Your task to perform on an android device: Open the calendar app, open the side menu, and click the "Day" option Image 0: 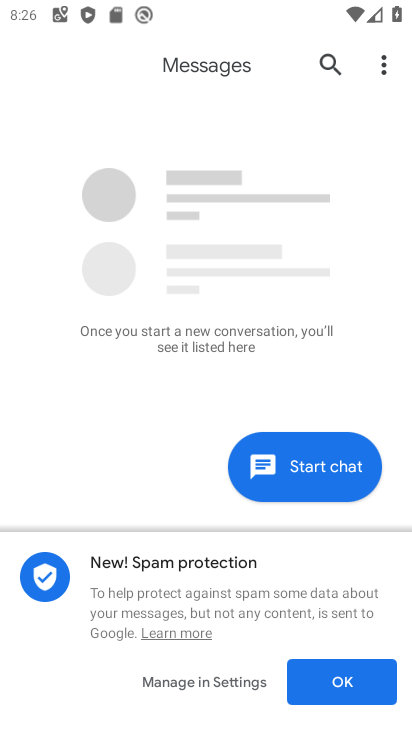
Step 0: press back button
Your task to perform on an android device: Open the calendar app, open the side menu, and click the "Day" option Image 1: 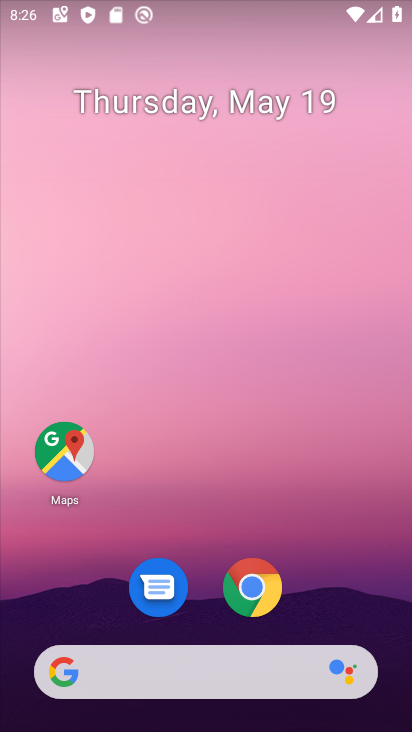
Step 1: drag from (329, 586) to (255, 10)
Your task to perform on an android device: Open the calendar app, open the side menu, and click the "Day" option Image 2: 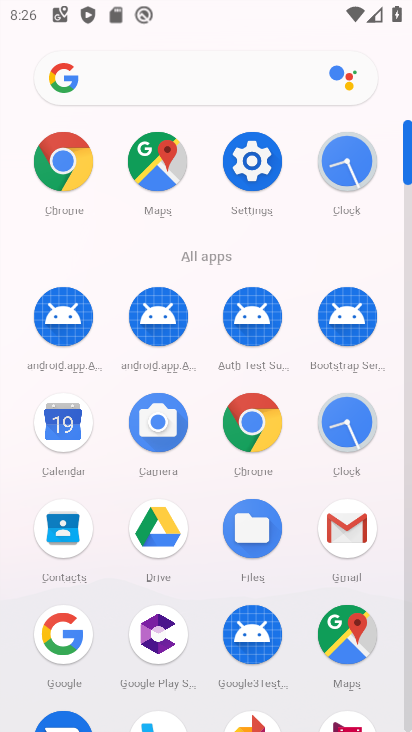
Step 2: drag from (0, 568) to (9, 261)
Your task to perform on an android device: Open the calendar app, open the side menu, and click the "Day" option Image 3: 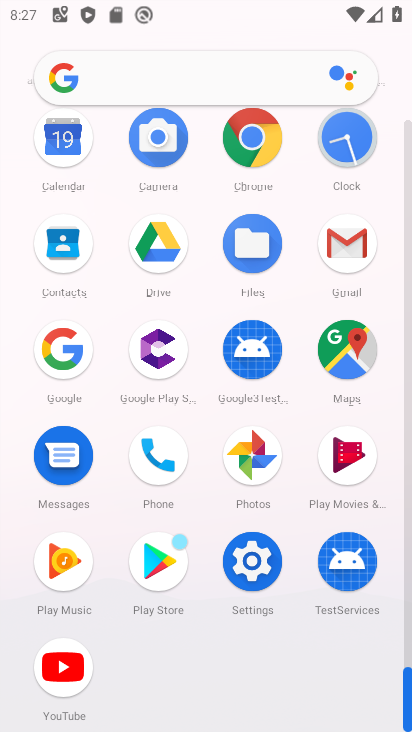
Step 3: click (57, 135)
Your task to perform on an android device: Open the calendar app, open the side menu, and click the "Day" option Image 4: 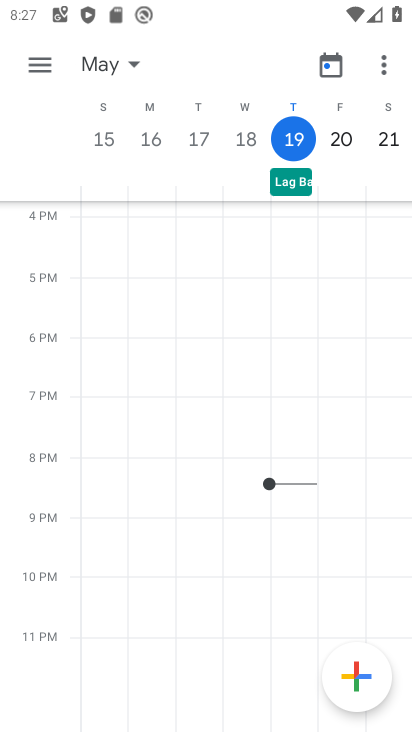
Step 4: click (32, 52)
Your task to perform on an android device: Open the calendar app, open the side menu, and click the "Day" option Image 5: 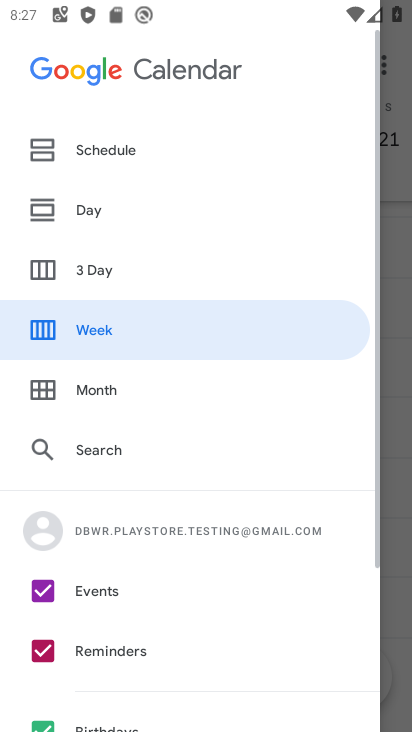
Step 5: click (89, 209)
Your task to perform on an android device: Open the calendar app, open the side menu, and click the "Day" option Image 6: 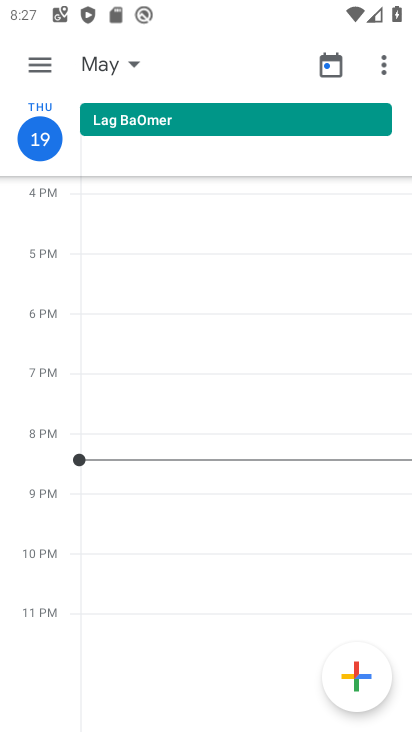
Step 6: task complete